Your task to perform on an android device: turn on location history Image 0: 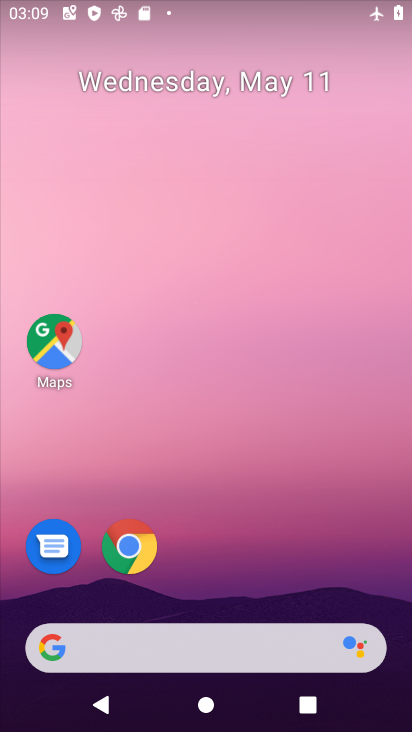
Step 0: drag from (218, 600) to (308, 126)
Your task to perform on an android device: turn on location history Image 1: 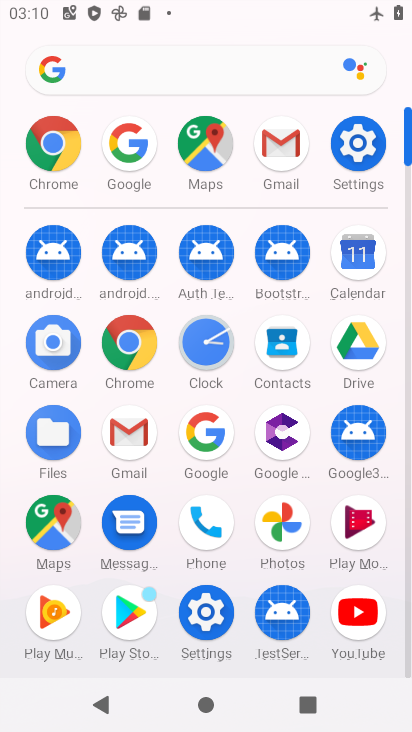
Step 1: click (200, 616)
Your task to perform on an android device: turn on location history Image 2: 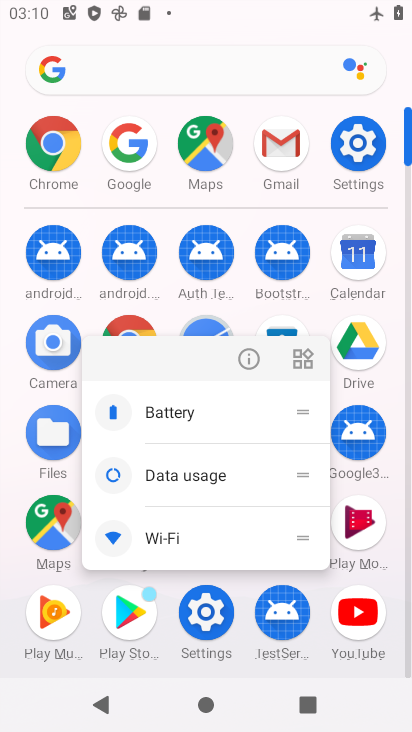
Step 2: click (244, 368)
Your task to perform on an android device: turn on location history Image 3: 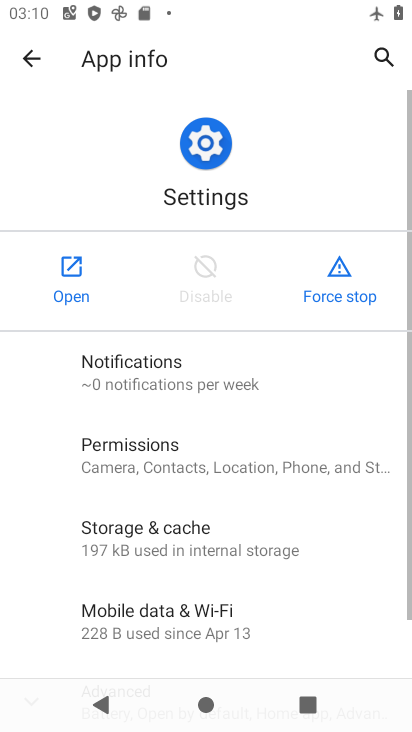
Step 3: click (85, 274)
Your task to perform on an android device: turn on location history Image 4: 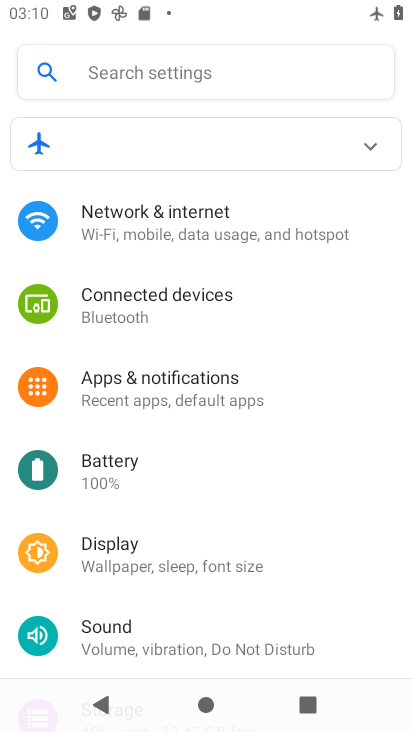
Step 4: drag from (222, 561) to (325, 42)
Your task to perform on an android device: turn on location history Image 5: 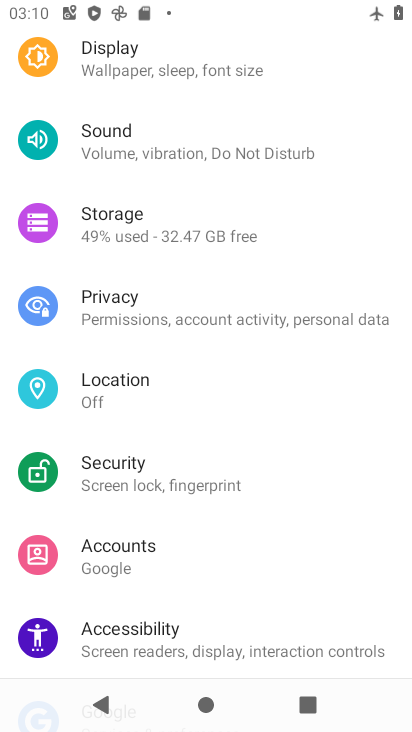
Step 5: drag from (219, 493) to (345, 54)
Your task to perform on an android device: turn on location history Image 6: 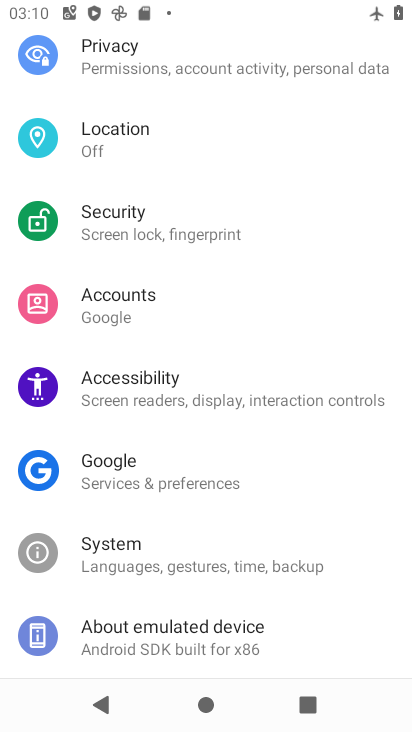
Step 6: click (168, 145)
Your task to perform on an android device: turn on location history Image 7: 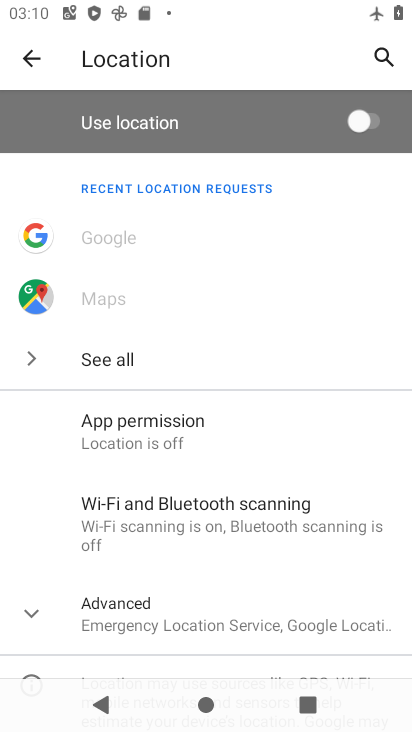
Step 7: drag from (224, 600) to (264, 301)
Your task to perform on an android device: turn on location history Image 8: 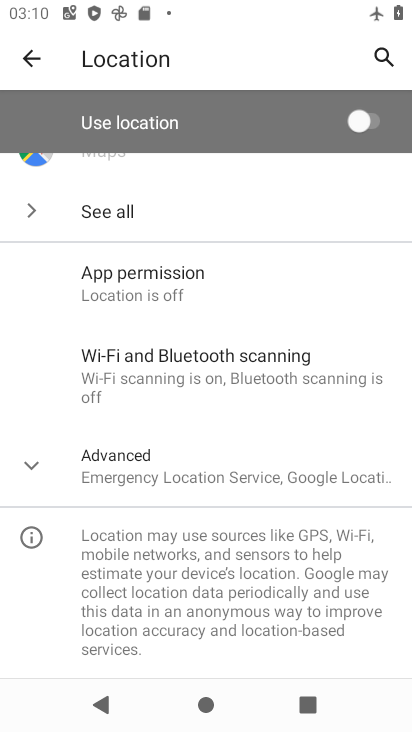
Step 8: click (162, 466)
Your task to perform on an android device: turn on location history Image 9: 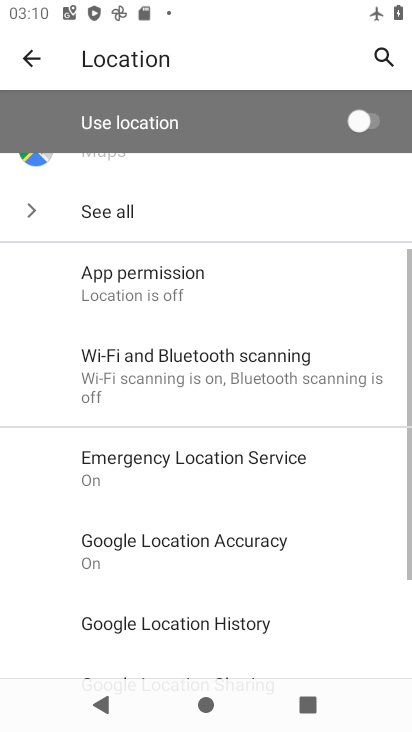
Step 9: drag from (189, 497) to (305, 188)
Your task to perform on an android device: turn on location history Image 10: 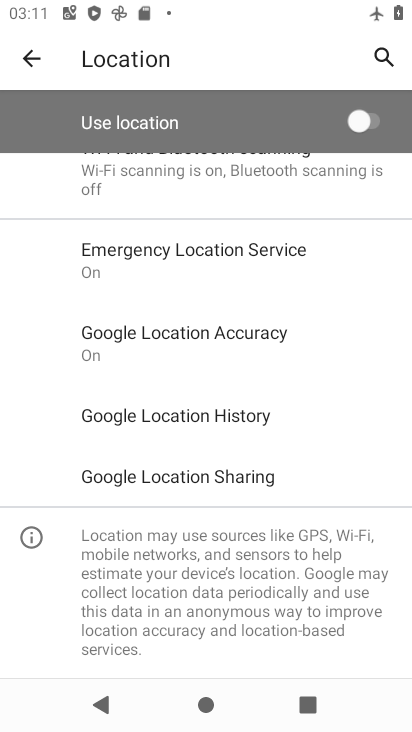
Step 10: click (221, 417)
Your task to perform on an android device: turn on location history Image 11: 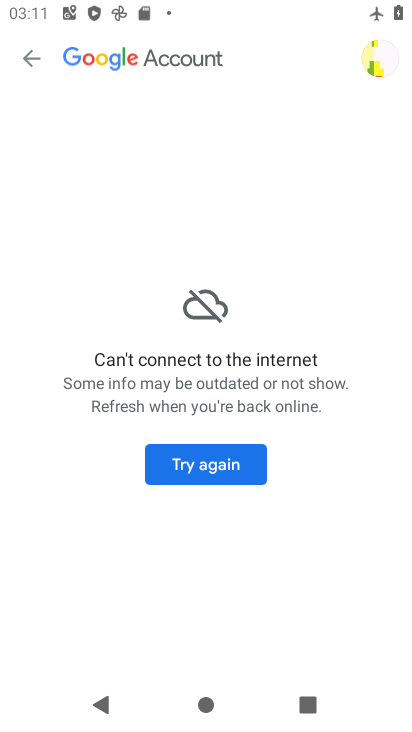
Step 11: click (194, 449)
Your task to perform on an android device: turn on location history Image 12: 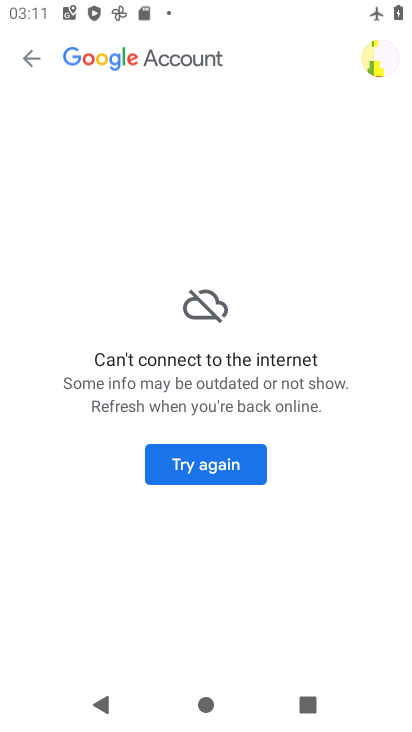
Step 12: task complete